Your task to perform on an android device: Open Amazon Image 0: 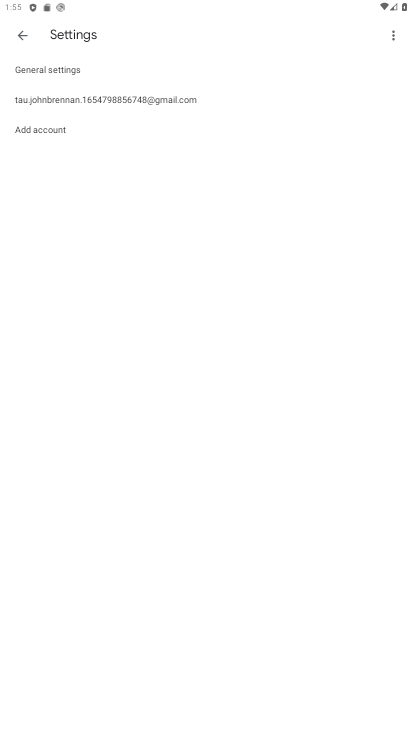
Step 0: press home button
Your task to perform on an android device: Open Amazon Image 1: 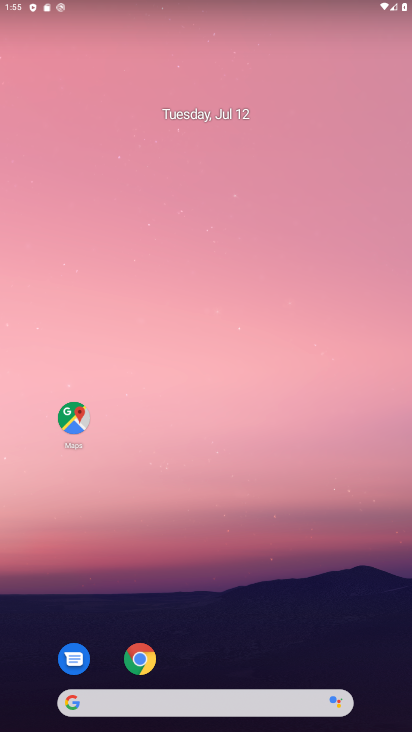
Step 1: drag from (241, 669) to (315, 138)
Your task to perform on an android device: Open Amazon Image 2: 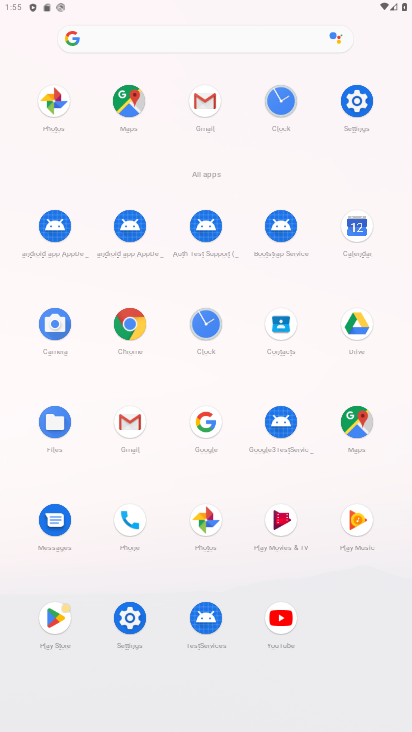
Step 2: click (129, 340)
Your task to perform on an android device: Open Amazon Image 3: 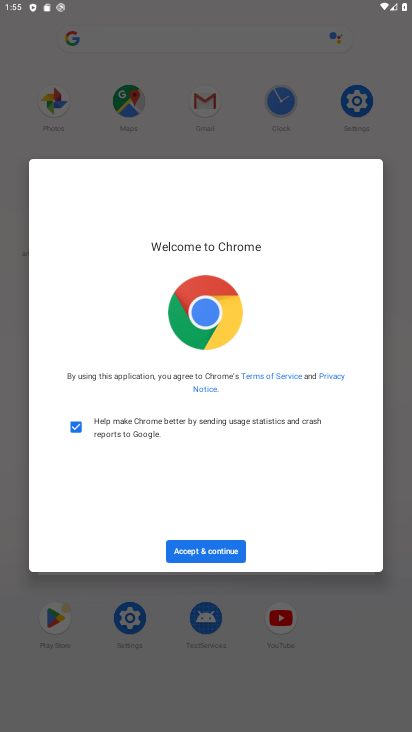
Step 3: click (214, 546)
Your task to perform on an android device: Open Amazon Image 4: 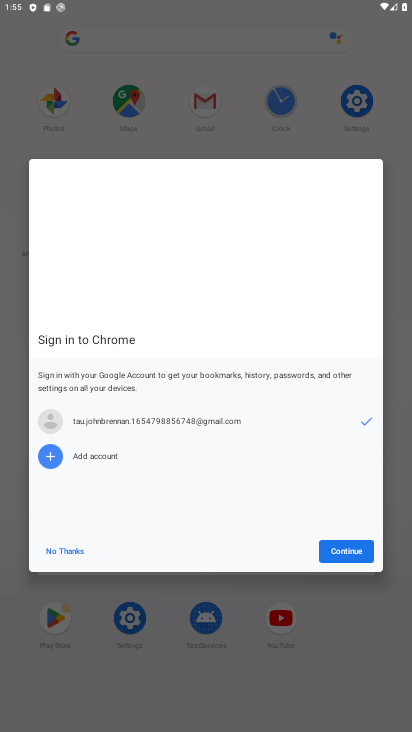
Step 4: click (336, 546)
Your task to perform on an android device: Open Amazon Image 5: 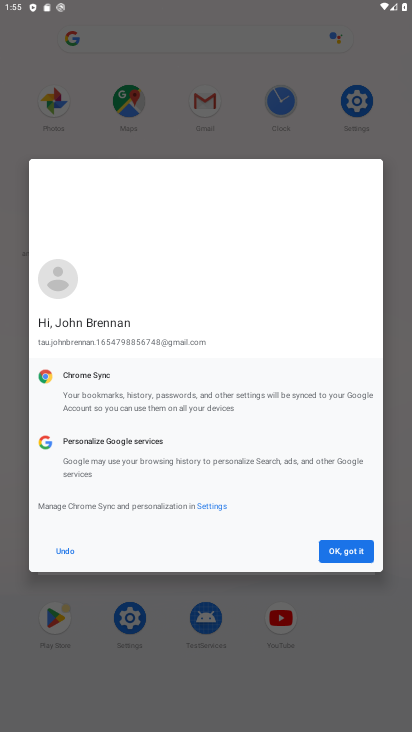
Step 5: click (353, 548)
Your task to perform on an android device: Open Amazon Image 6: 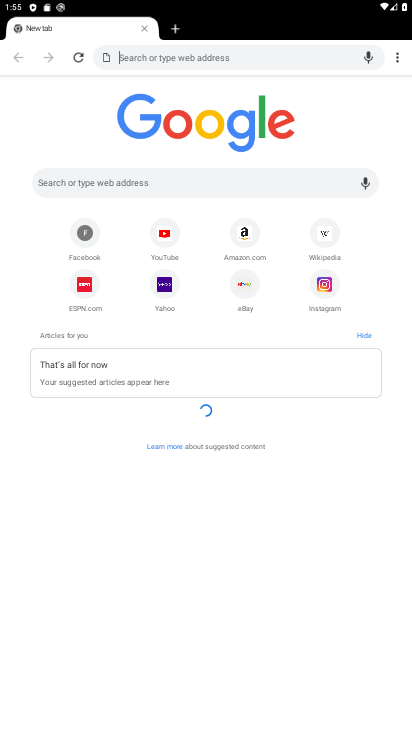
Step 6: click (244, 243)
Your task to perform on an android device: Open Amazon Image 7: 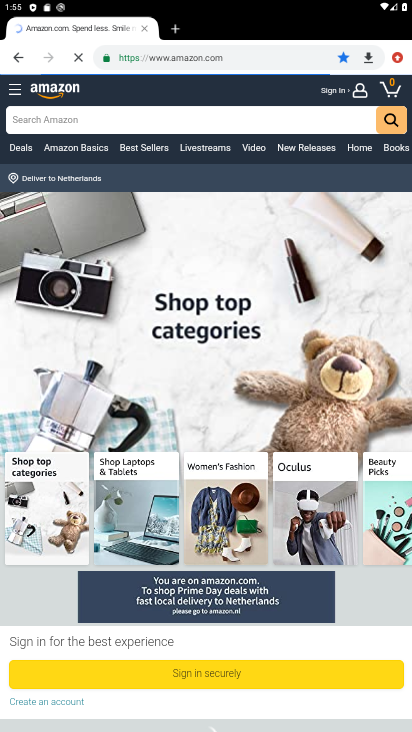
Step 7: task complete